Your task to perform on an android device: toggle javascript in the chrome app Image 0: 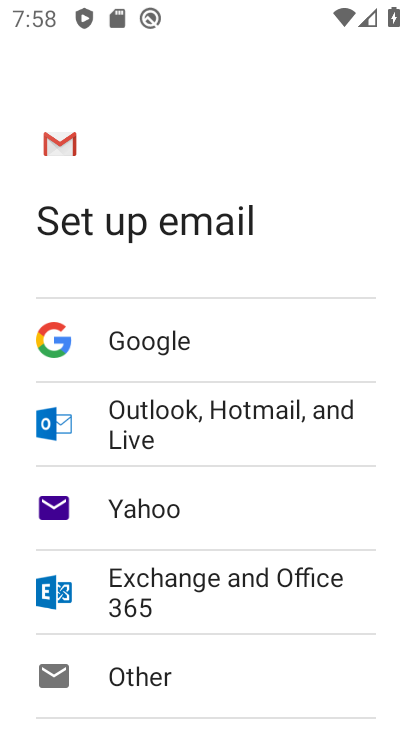
Step 0: press home button
Your task to perform on an android device: toggle javascript in the chrome app Image 1: 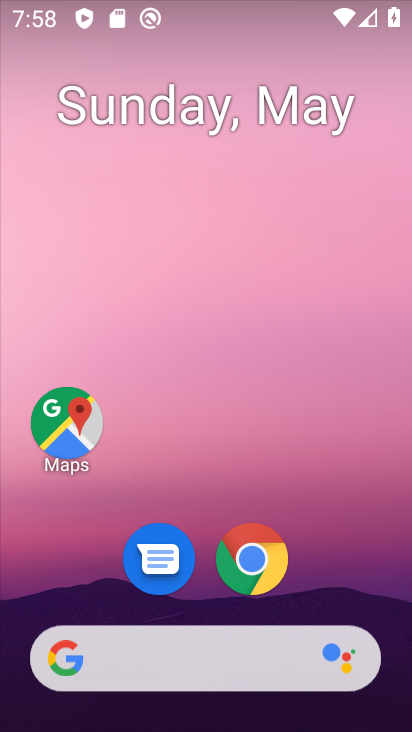
Step 1: click (258, 553)
Your task to perform on an android device: toggle javascript in the chrome app Image 2: 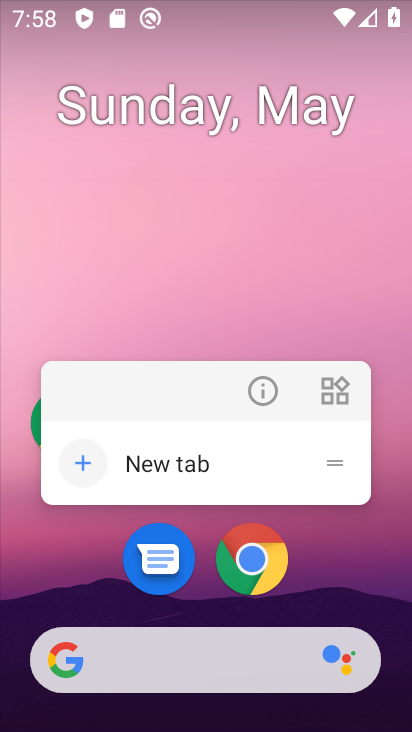
Step 2: click (231, 540)
Your task to perform on an android device: toggle javascript in the chrome app Image 3: 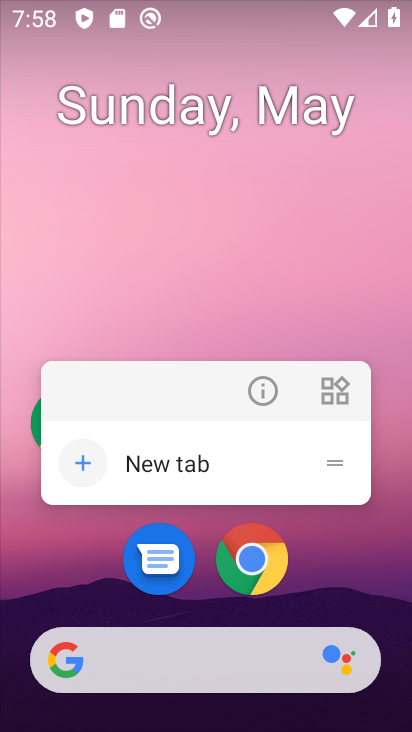
Step 3: click (231, 540)
Your task to perform on an android device: toggle javascript in the chrome app Image 4: 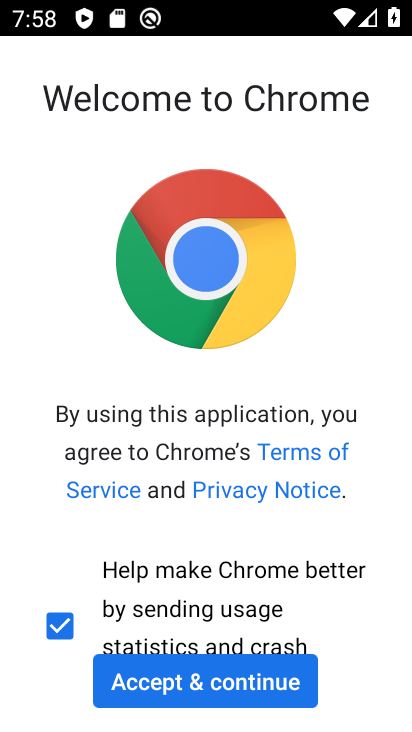
Step 4: click (239, 679)
Your task to perform on an android device: toggle javascript in the chrome app Image 5: 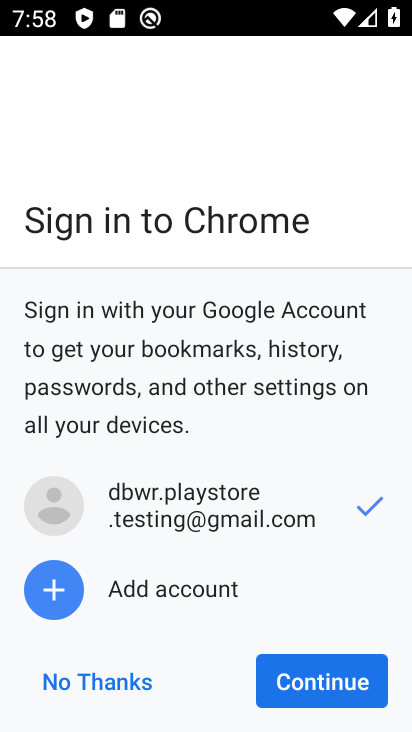
Step 5: click (313, 664)
Your task to perform on an android device: toggle javascript in the chrome app Image 6: 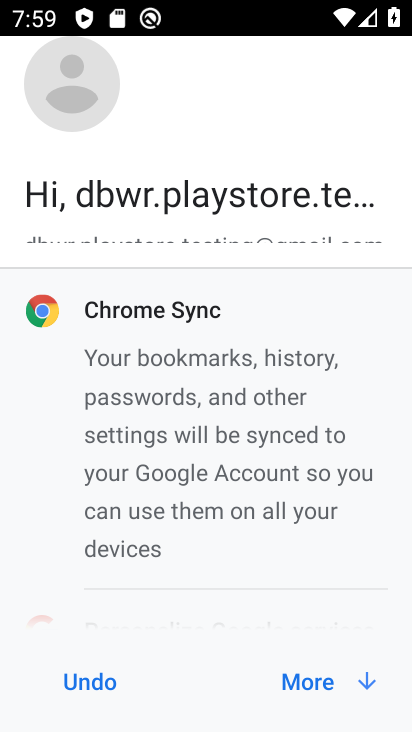
Step 6: click (329, 675)
Your task to perform on an android device: toggle javascript in the chrome app Image 7: 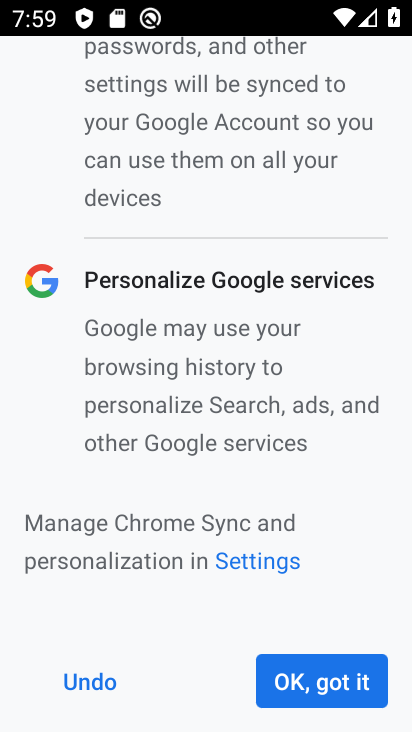
Step 7: click (329, 675)
Your task to perform on an android device: toggle javascript in the chrome app Image 8: 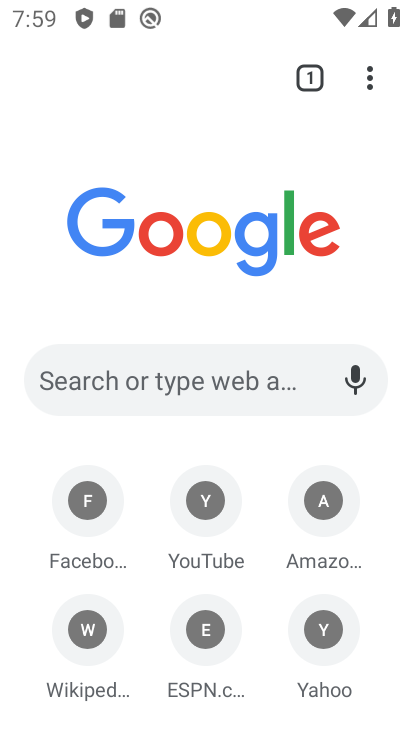
Step 8: click (367, 67)
Your task to perform on an android device: toggle javascript in the chrome app Image 9: 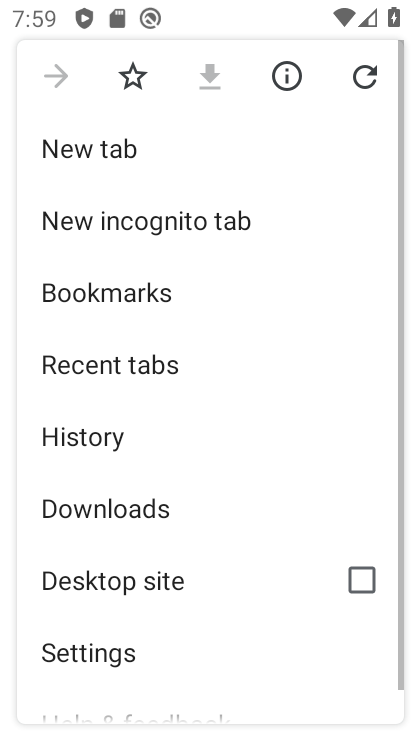
Step 9: drag from (195, 570) to (214, 121)
Your task to perform on an android device: toggle javascript in the chrome app Image 10: 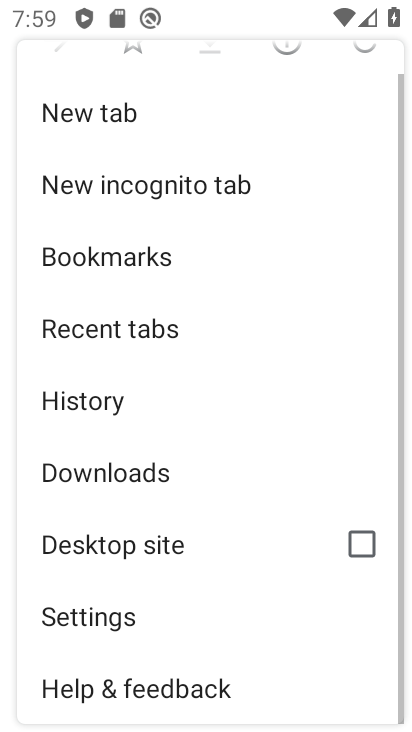
Step 10: click (95, 600)
Your task to perform on an android device: toggle javascript in the chrome app Image 11: 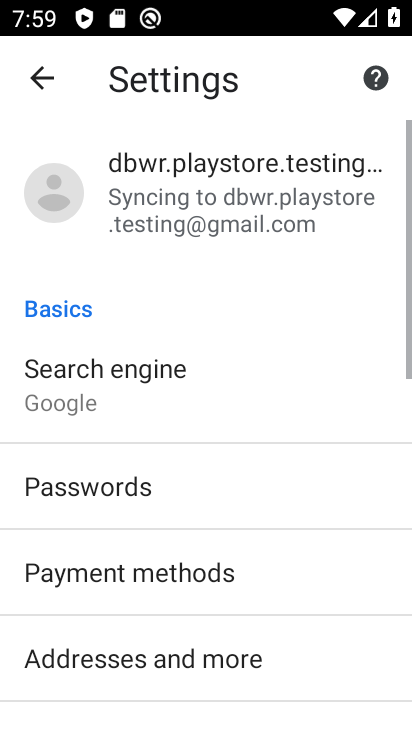
Step 11: drag from (95, 600) to (158, 164)
Your task to perform on an android device: toggle javascript in the chrome app Image 12: 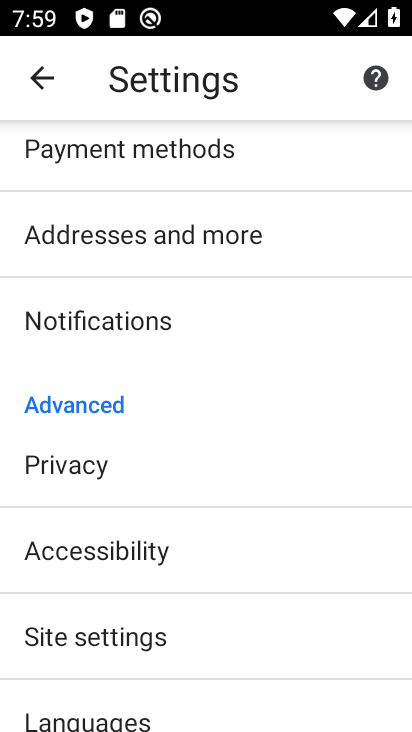
Step 12: click (107, 643)
Your task to perform on an android device: toggle javascript in the chrome app Image 13: 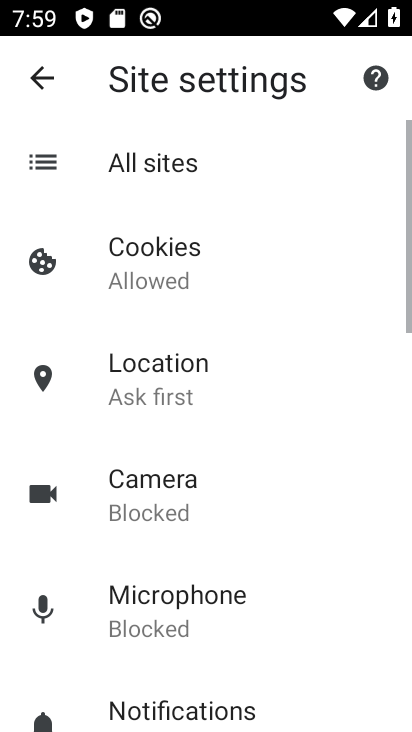
Step 13: drag from (107, 643) to (179, 247)
Your task to perform on an android device: toggle javascript in the chrome app Image 14: 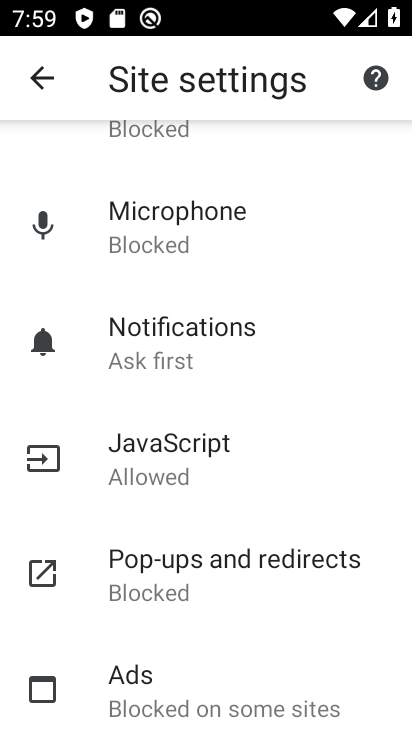
Step 14: click (152, 455)
Your task to perform on an android device: toggle javascript in the chrome app Image 15: 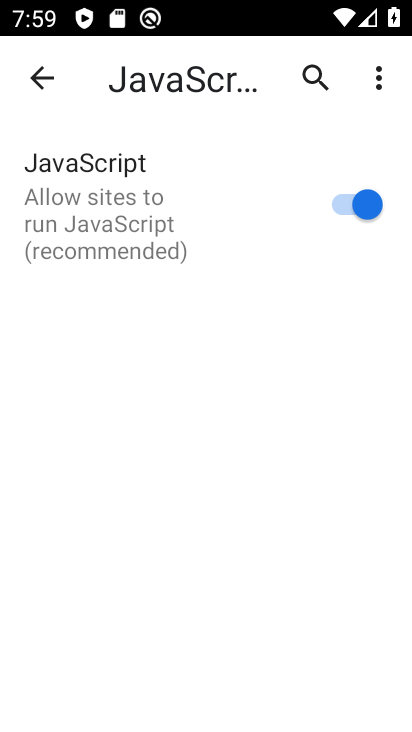
Step 15: click (339, 192)
Your task to perform on an android device: toggle javascript in the chrome app Image 16: 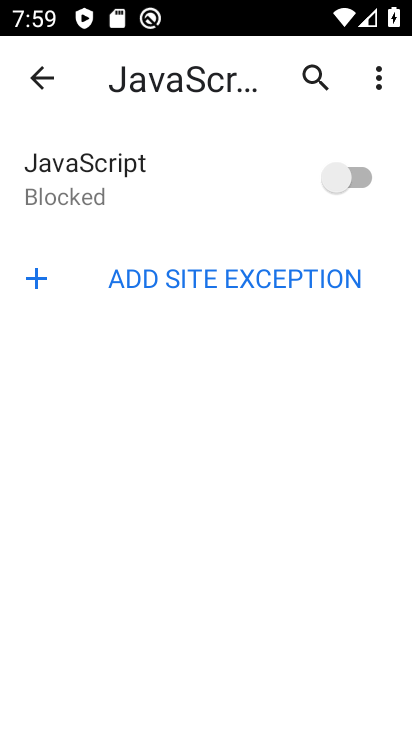
Step 16: task complete